Your task to perform on an android device: change alarm snooze length Image 0: 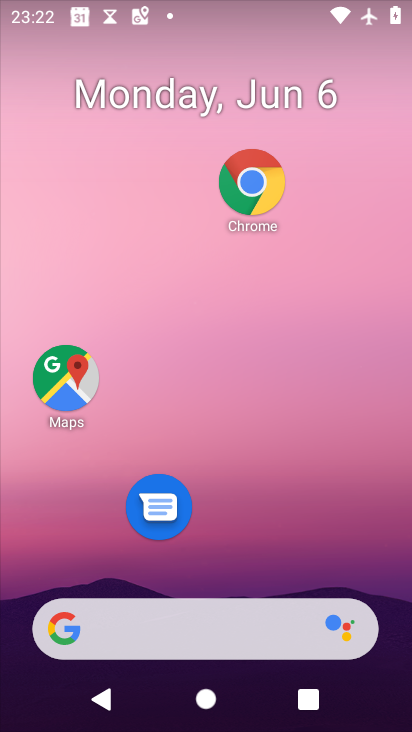
Step 0: drag from (282, 484) to (275, 277)
Your task to perform on an android device: change alarm snooze length Image 1: 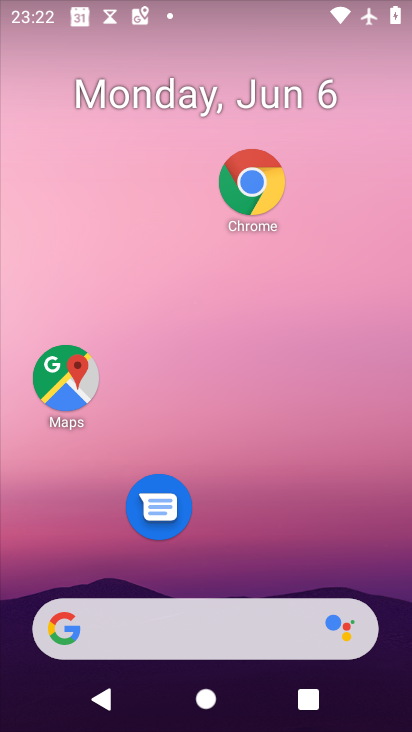
Step 1: drag from (276, 540) to (279, 291)
Your task to perform on an android device: change alarm snooze length Image 2: 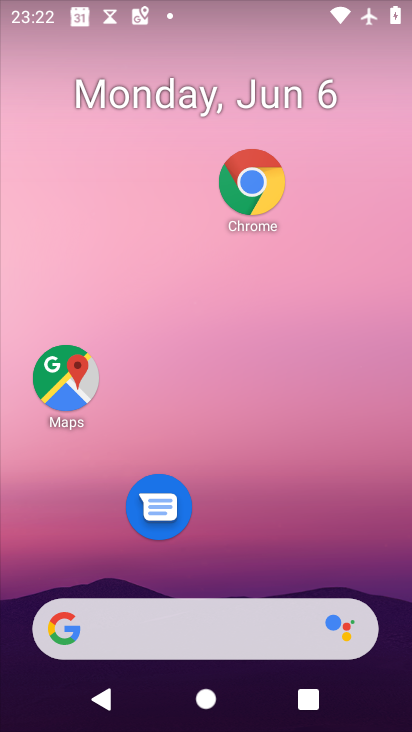
Step 2: drag from (265, 563) to (309, 233)
Your task to perform on an android device: change alarm snooze length Image 3: 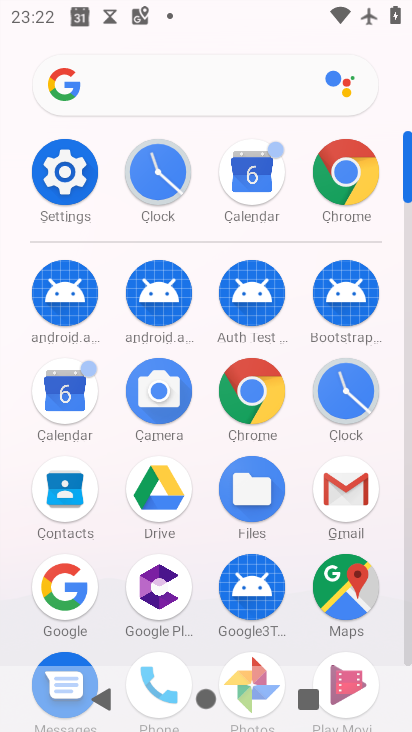
Step 3: click (348, 386)
Your task to perform on an android device: change alarm snooze length Image 4: 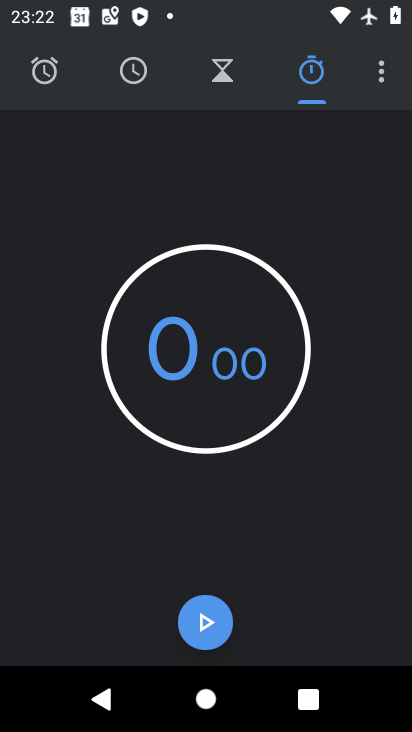
Step 4: click (378, 81)
Your task to perform on an android device: change alarm snooze length Image 5: 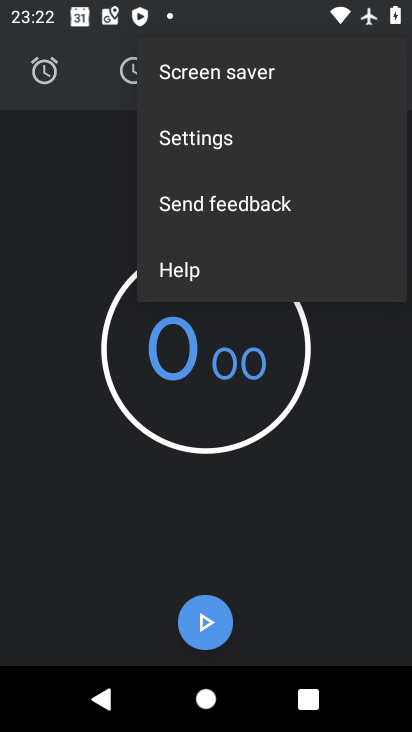
Step 5: click (221, 135)
Your task to perform on an android device: change alarm snooze length Image 6: 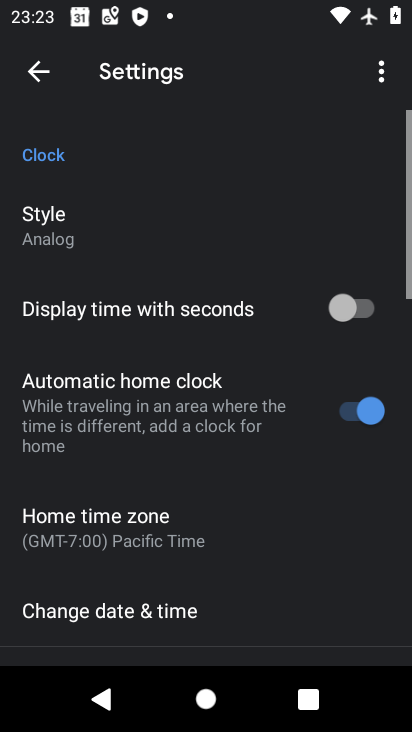
Step 6: drag from (188, 529) to (252, 239)
Your task to perform on an android device: change alarm snooze length Image 7: 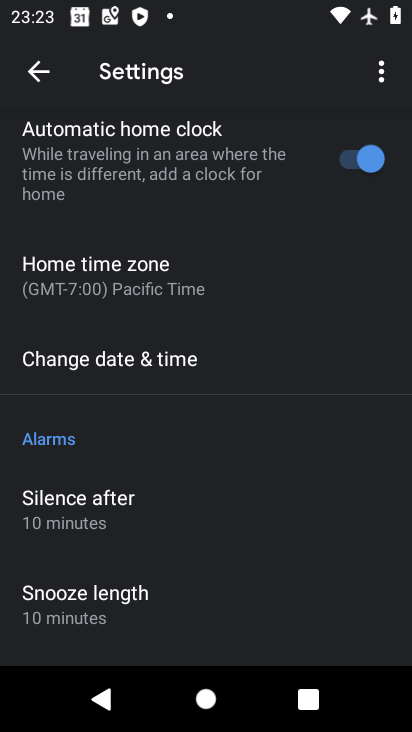
Step 7: click (110, 591)
Your task to perform on an android device: change alarm snooze length Image 8: 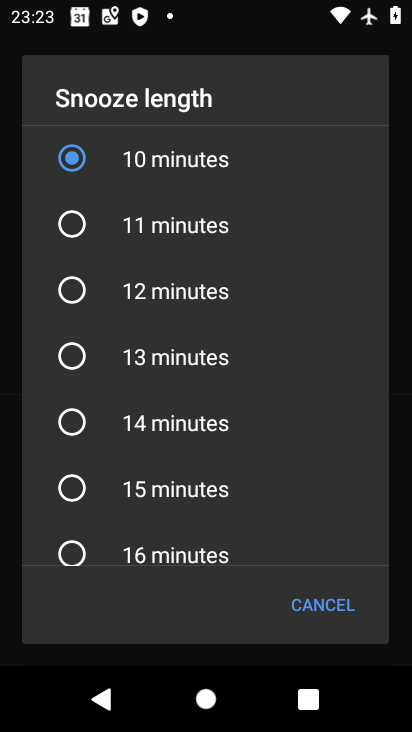
Step 8: click (208, 353)
Your task to perform on an android device: change alarm snooze length Image 9: 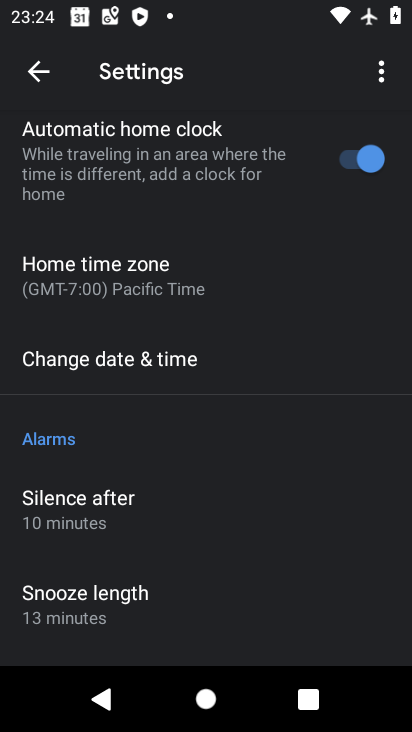
Step 9: task complete